Your task to perform on an android device: open app "NewsBreak: Local News & Alerts" (install if not already installed) and go to login screen Image 0: 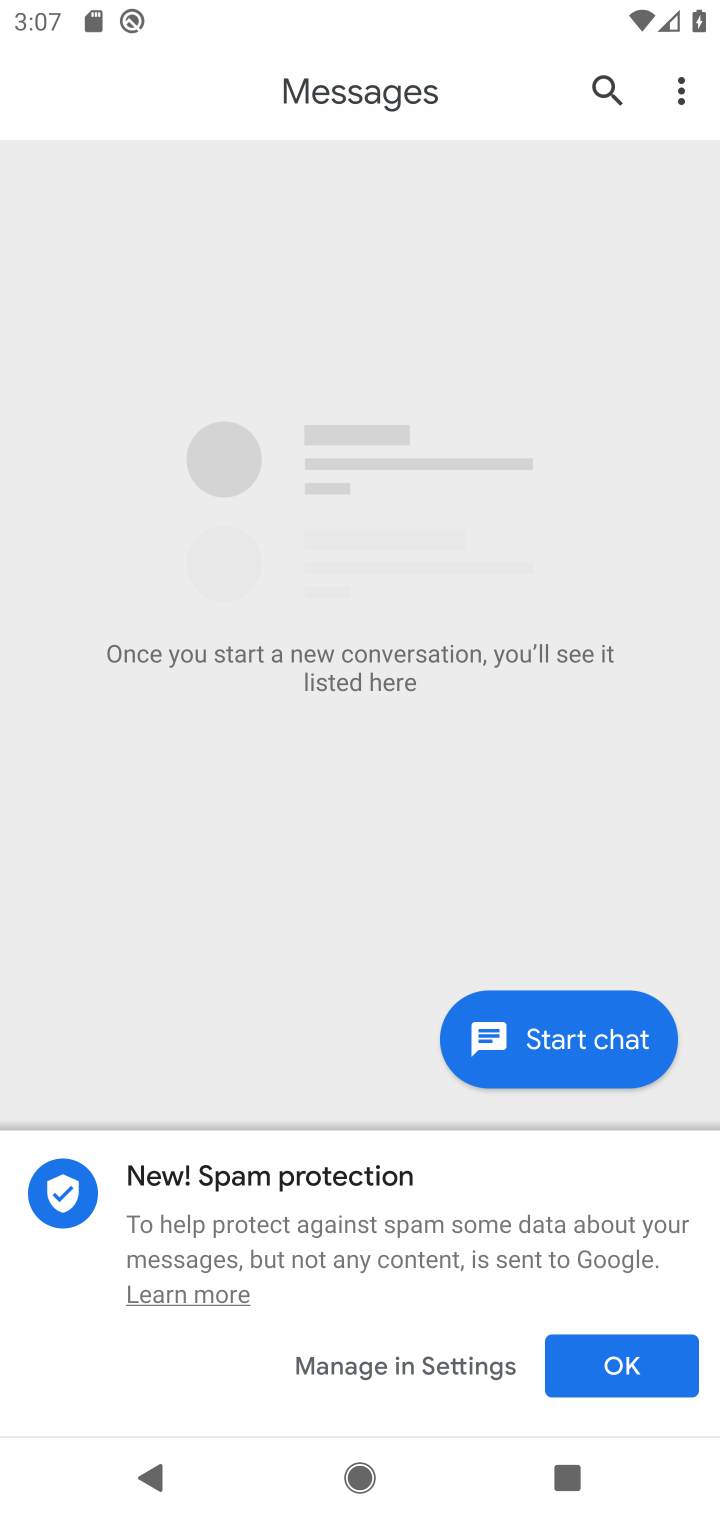
Step 0: press home button
Your task to perform on an android device: open app "NewsBreak: Local News & Alerts" (install if not already installed) and go to login screen Image 1: 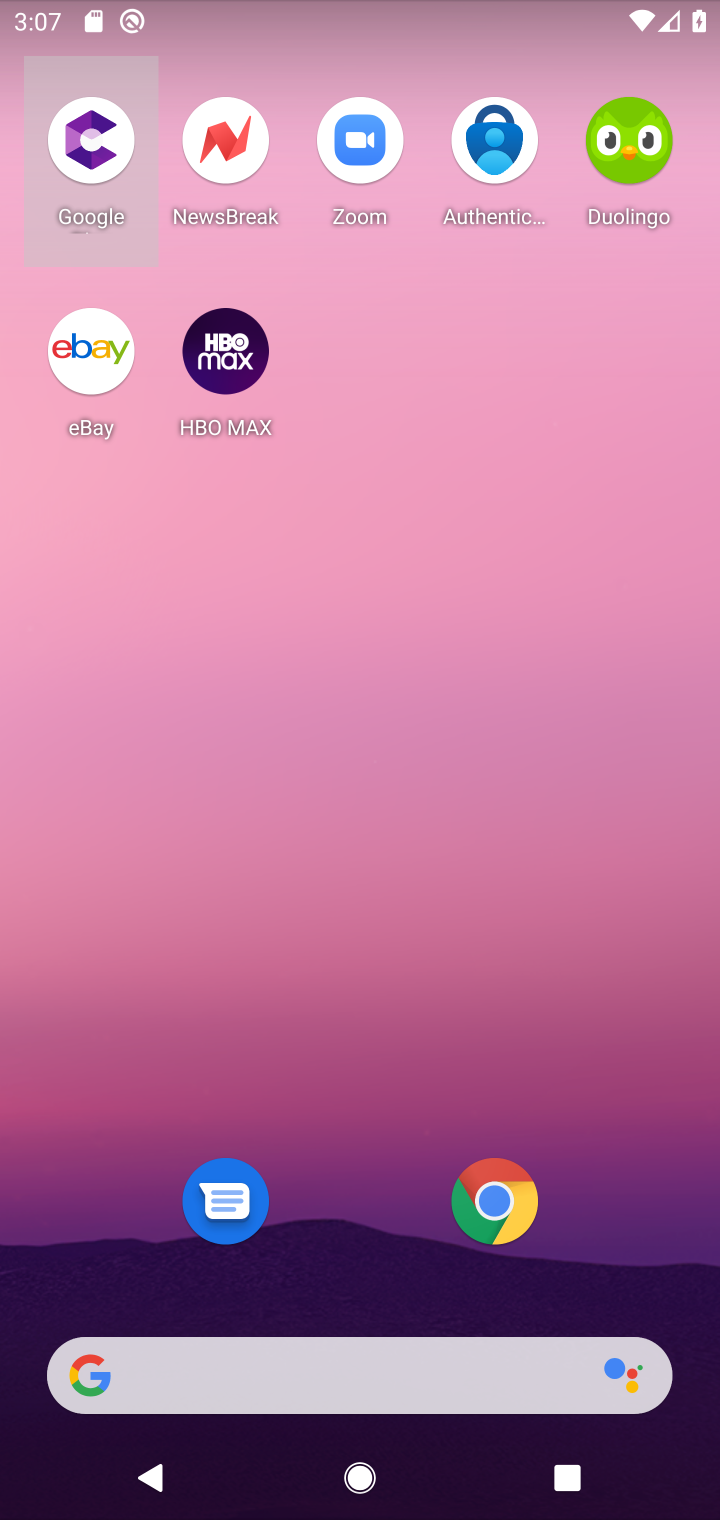
Step 1: drag from (684, 1296) to (573, 151)
Your task to perform on an android device: open app "NewsBreak: Local News & Alerts" (install if not already installed) and go to login screen Image 2: 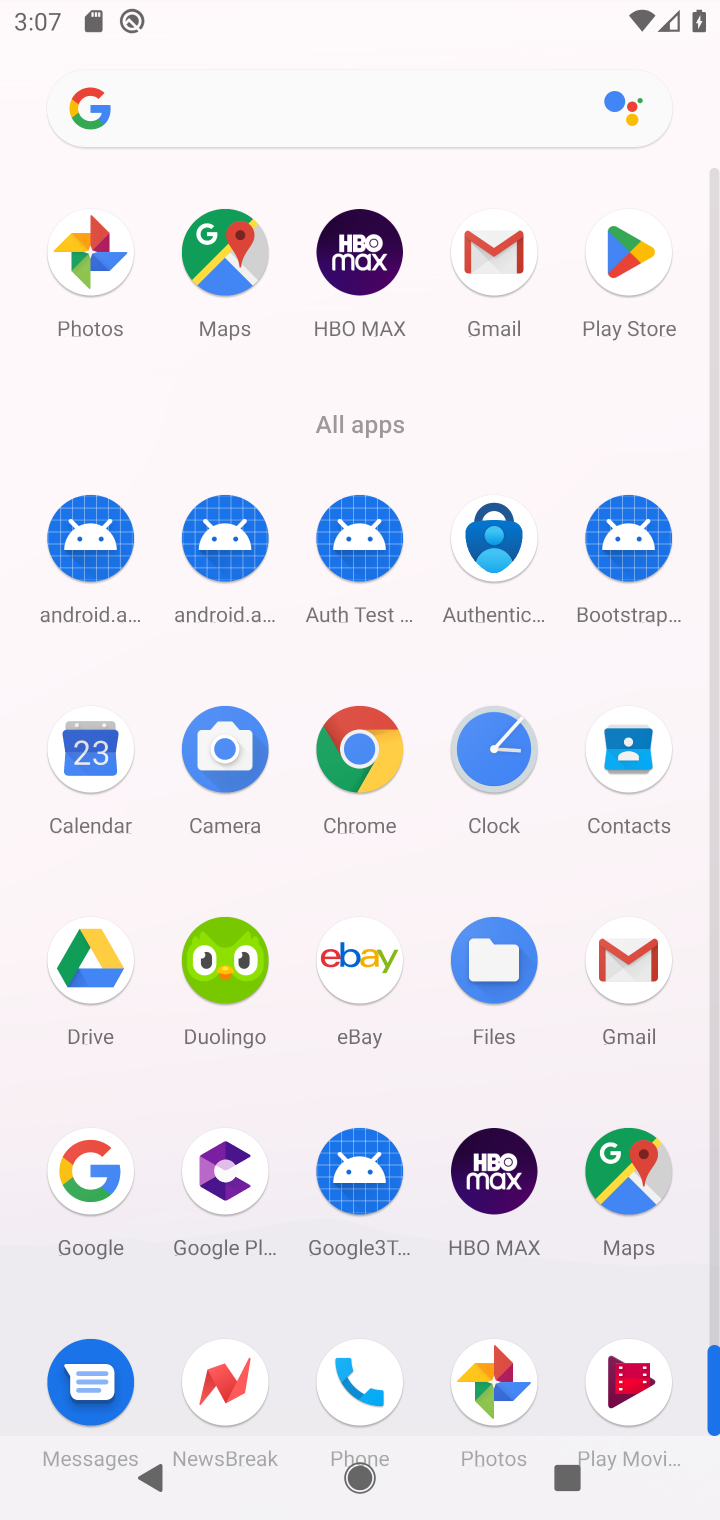
Step 2: click (718, 1307)
Your task to perform on an android device: open app "NewsBreak: Local News & Alerts" (install if not already installed) and go to login screen Image 3: 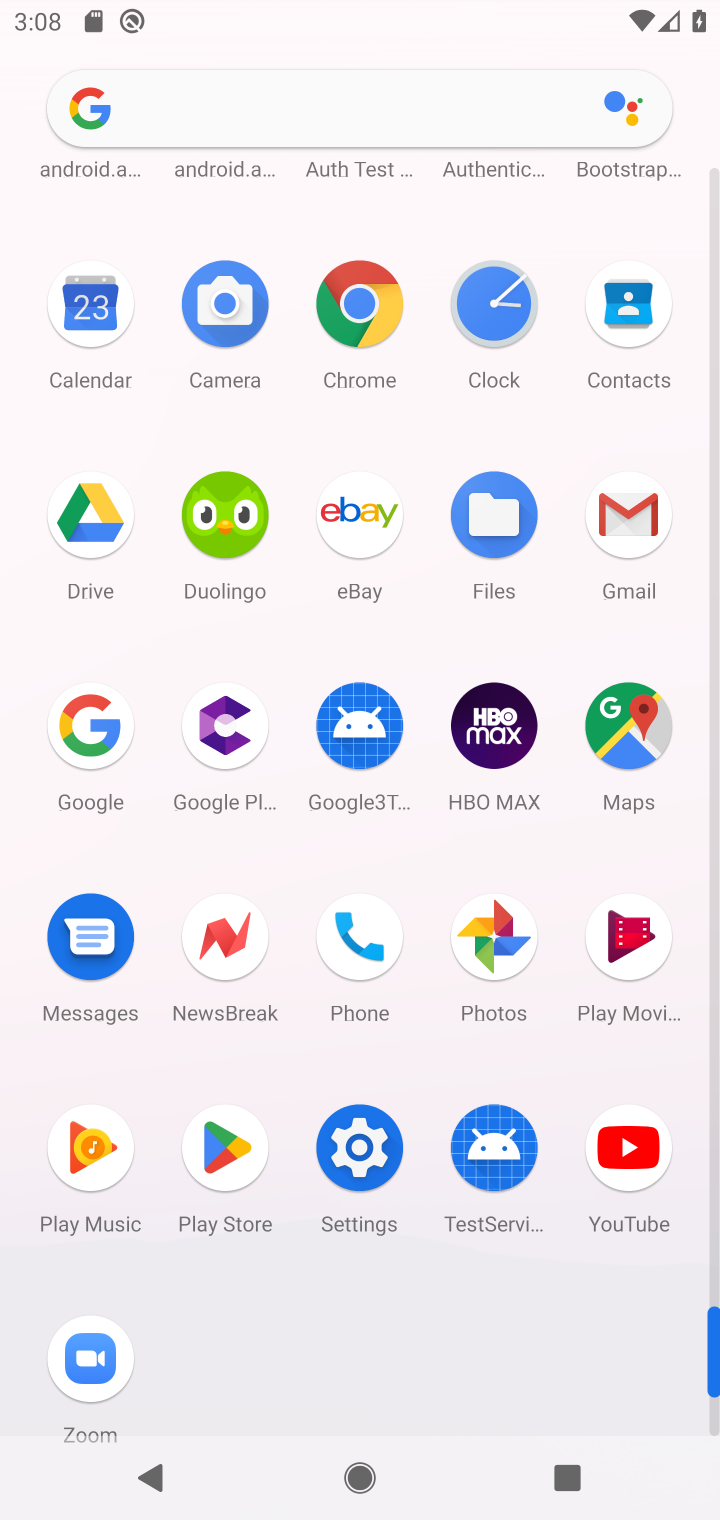
Step 3: click (225, 1153)
Your task to perform on an android device: open app "NewsBreak: Local News & Alerts" (install if not already installed) and go to login screen Image 4: 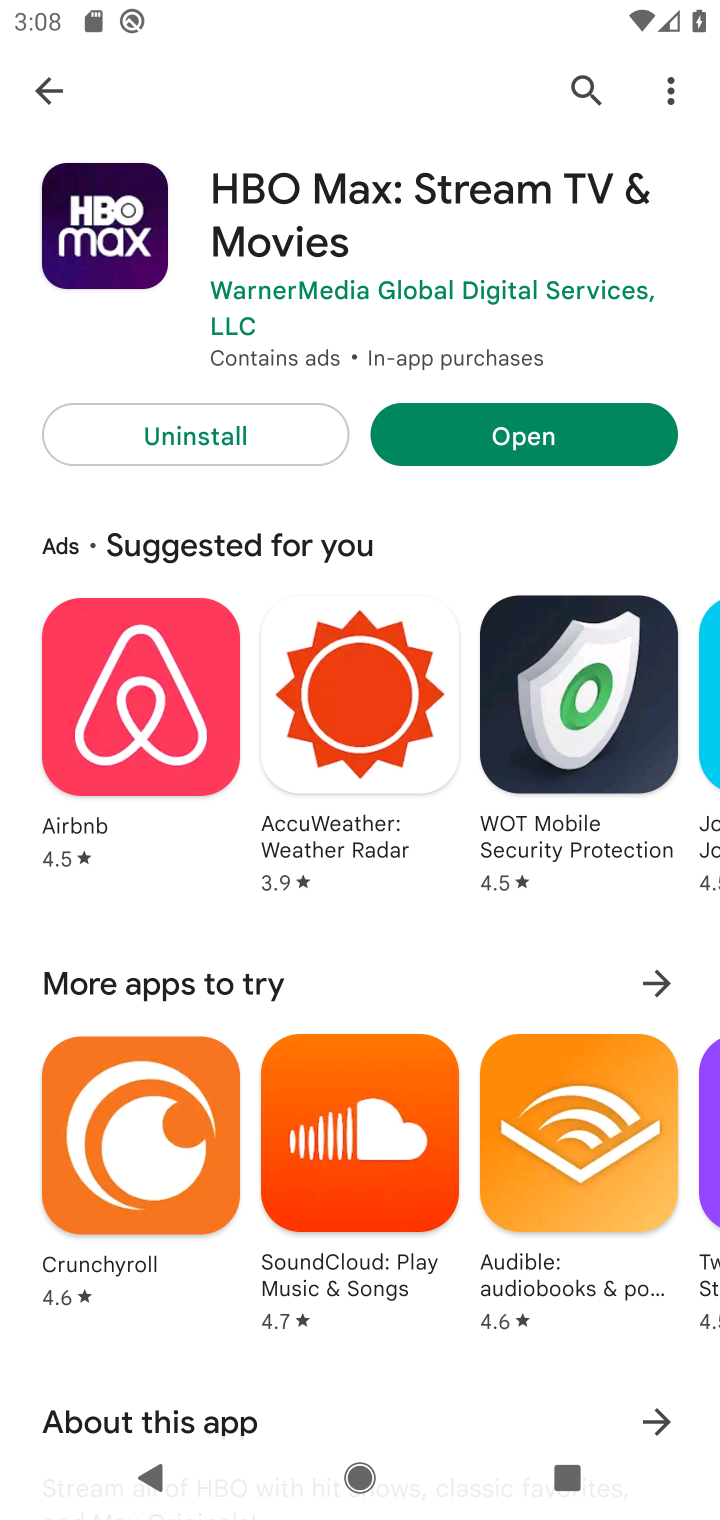
Step 4: click (586, 89)
Your task to perform on an android device: open app "NewsBreak: Local News & Alerts" (install if not already installed) and go to login screen Image 5: 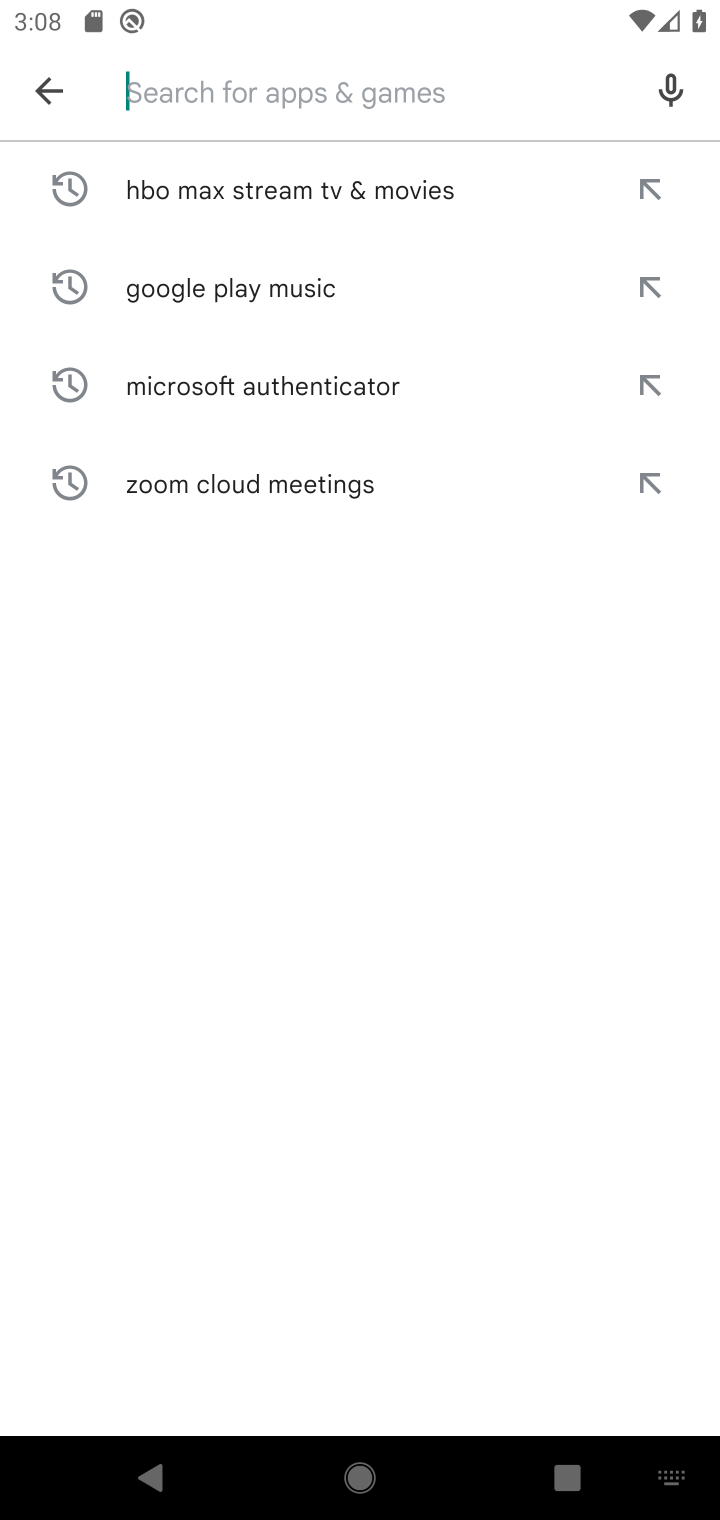
Step 5: type "NewsBreak: Local News & Alerts"
Your task to perform on an android device: open app "NewsBreak: Local News & Alerts" (install if not already installed) and go to login screen Image 6: 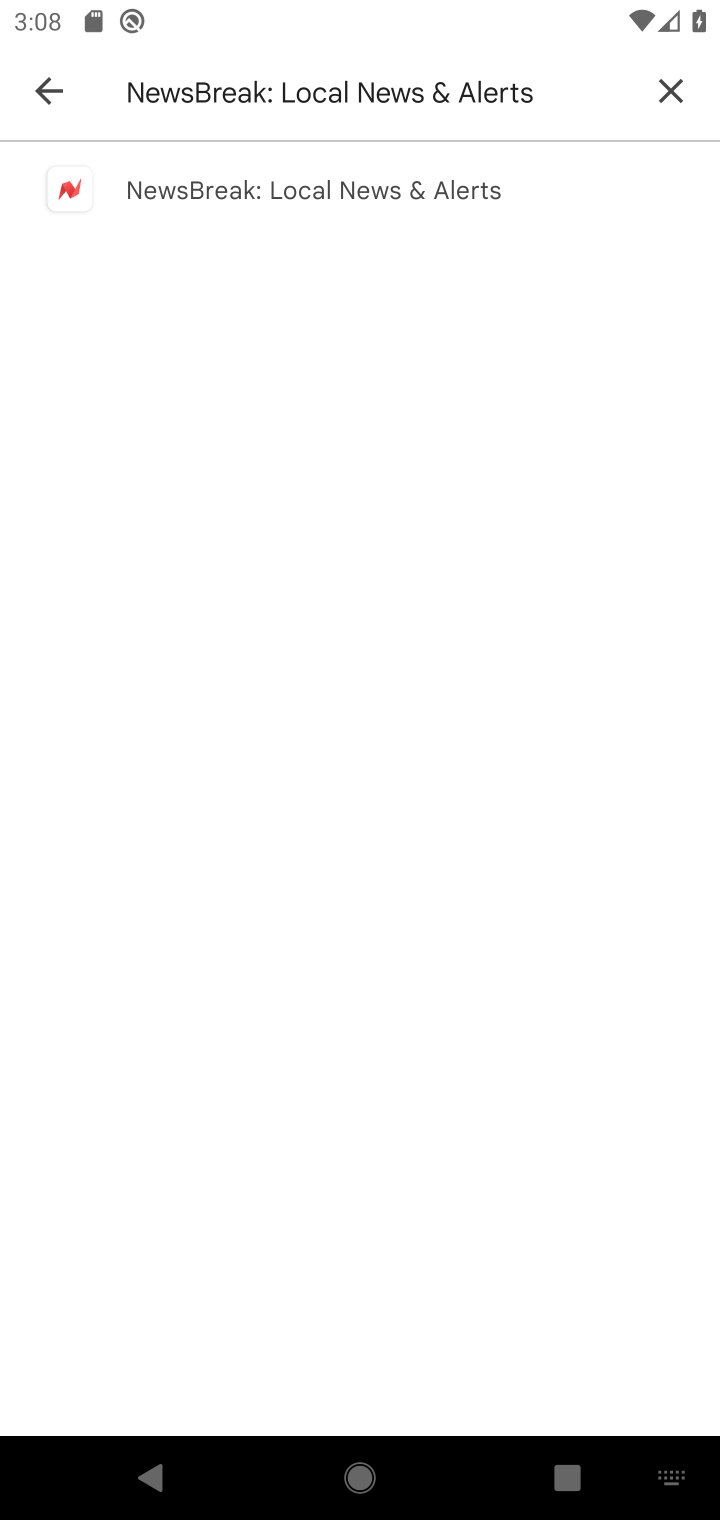
Step 6: click (282, 192)
Your task to perform on an android device: open app "NewsBreak: Local News & Alerts" (install if not already installed) and go to login screen Image 7: 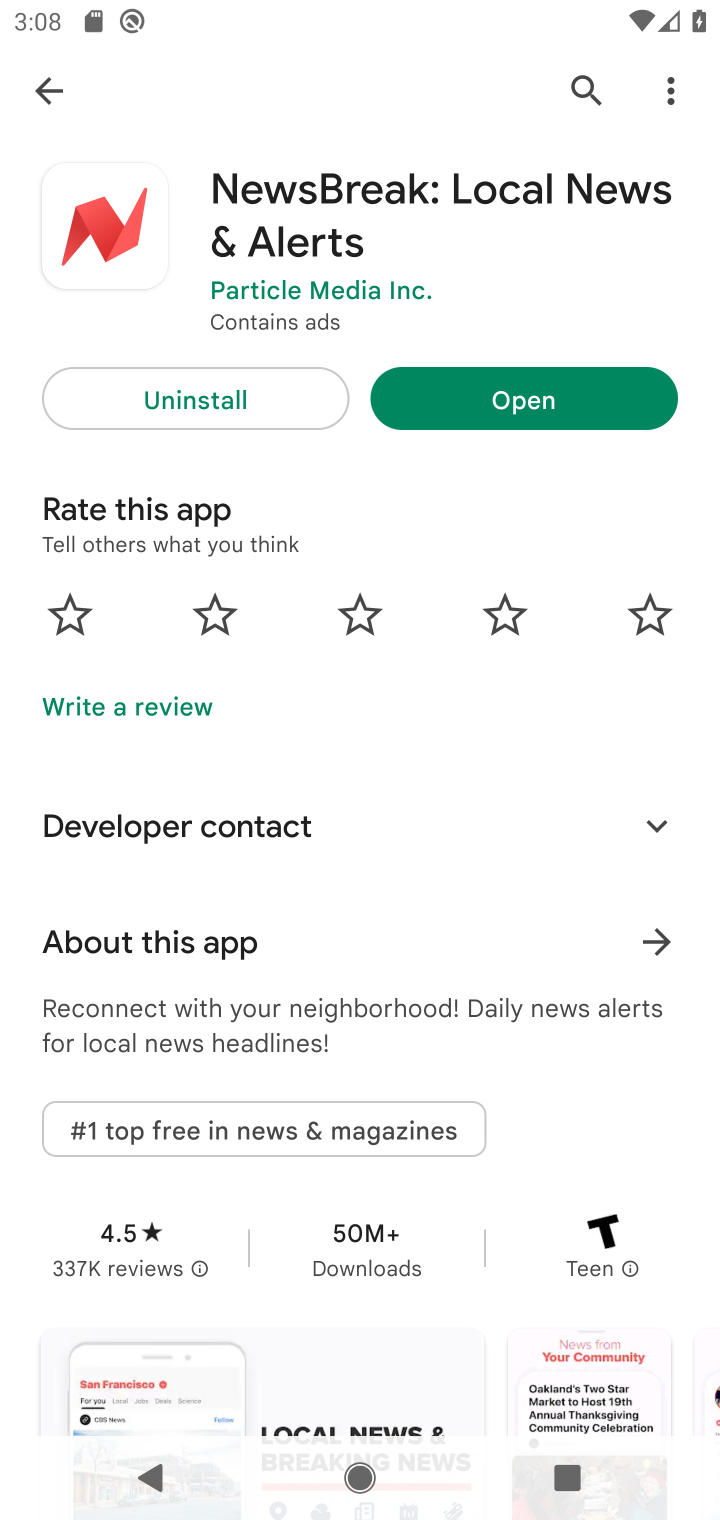
Step 7: click (511, 401)
Your task to perform on an android device: open app "NewsBreak: Local News & Alerts" (install if not already installed) and go to login screen Image 8: 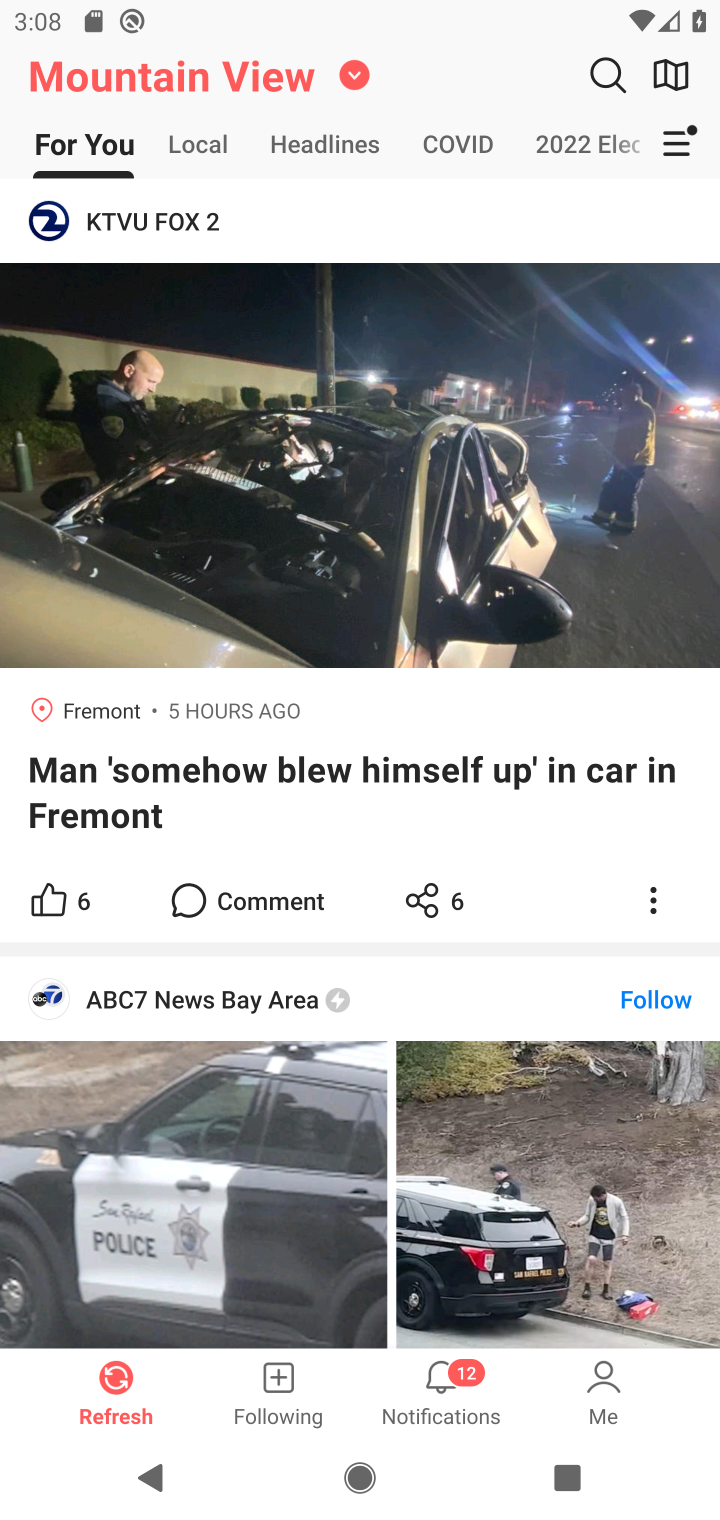
Step 8: click (599, 1380)
Your task to perform on an android device: open app "NewsBreak: Local News & Alerts" (install if not already installed) and go to login screen Image 9: 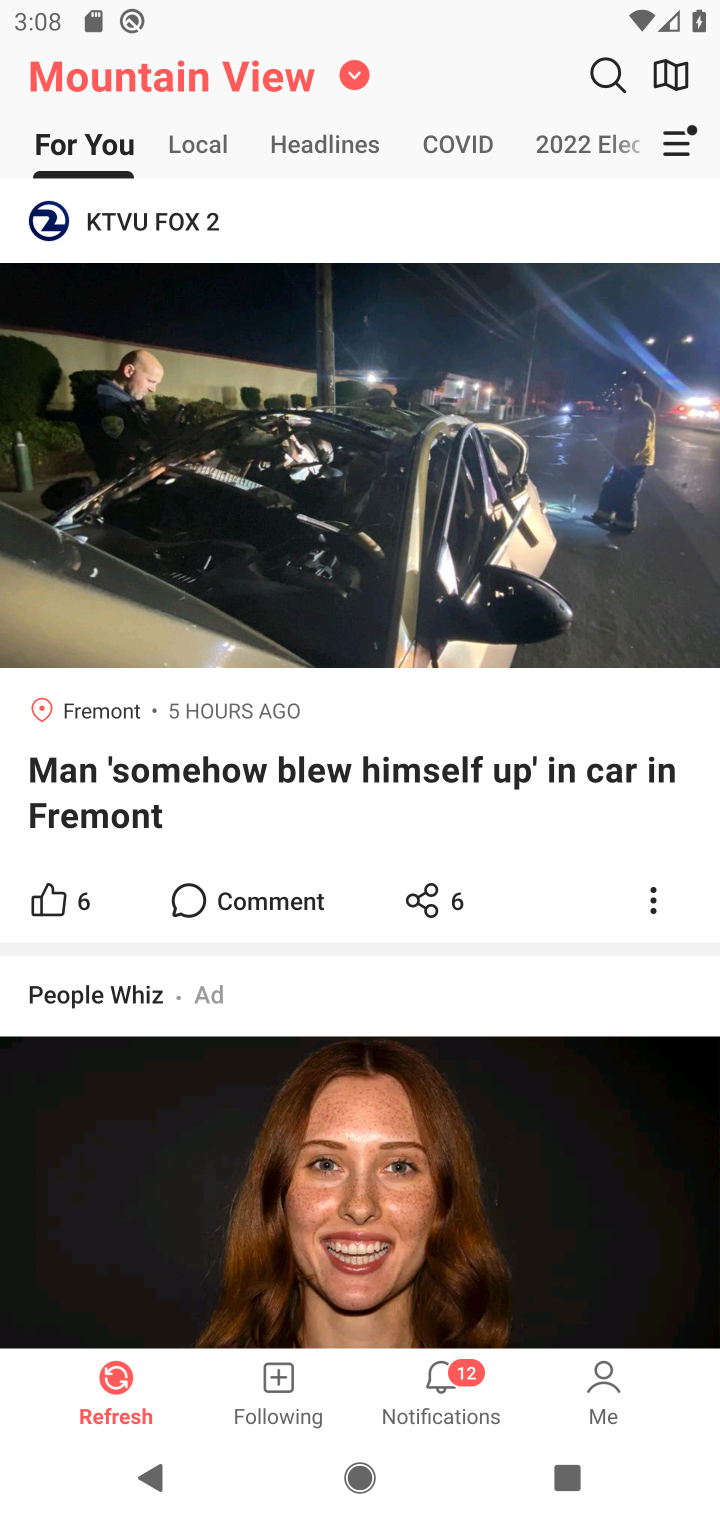
Step 9: click (599, 1377)
Your task to perform on an android device: open app "NewsBreak: Local News & Alerts" (install if not already installed) and go to login screen Image 10: 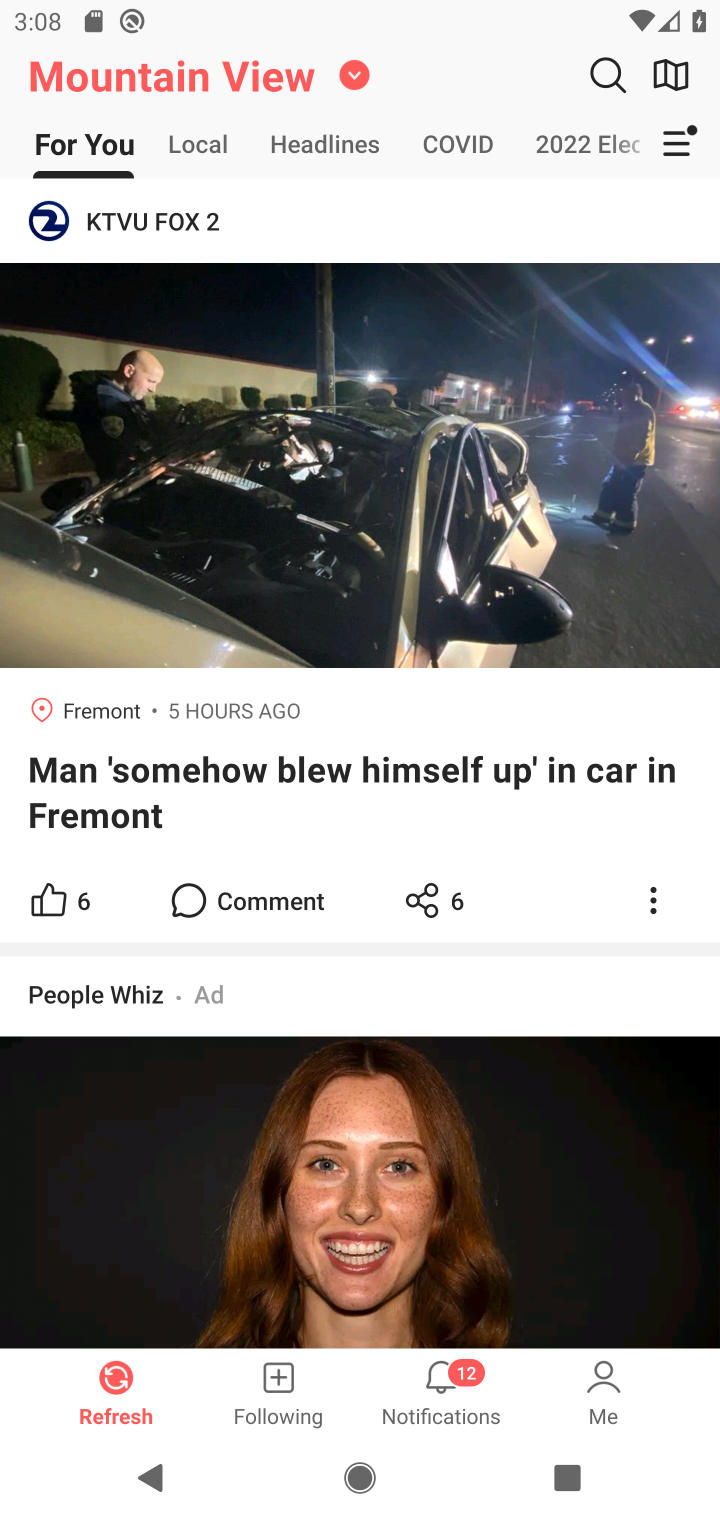
Step 10: click (596, 1389)
Your task to perform on an android device: open app "NewsBreak: Local News & Alerts" (install if not already installed) and go to login screen Image 11: 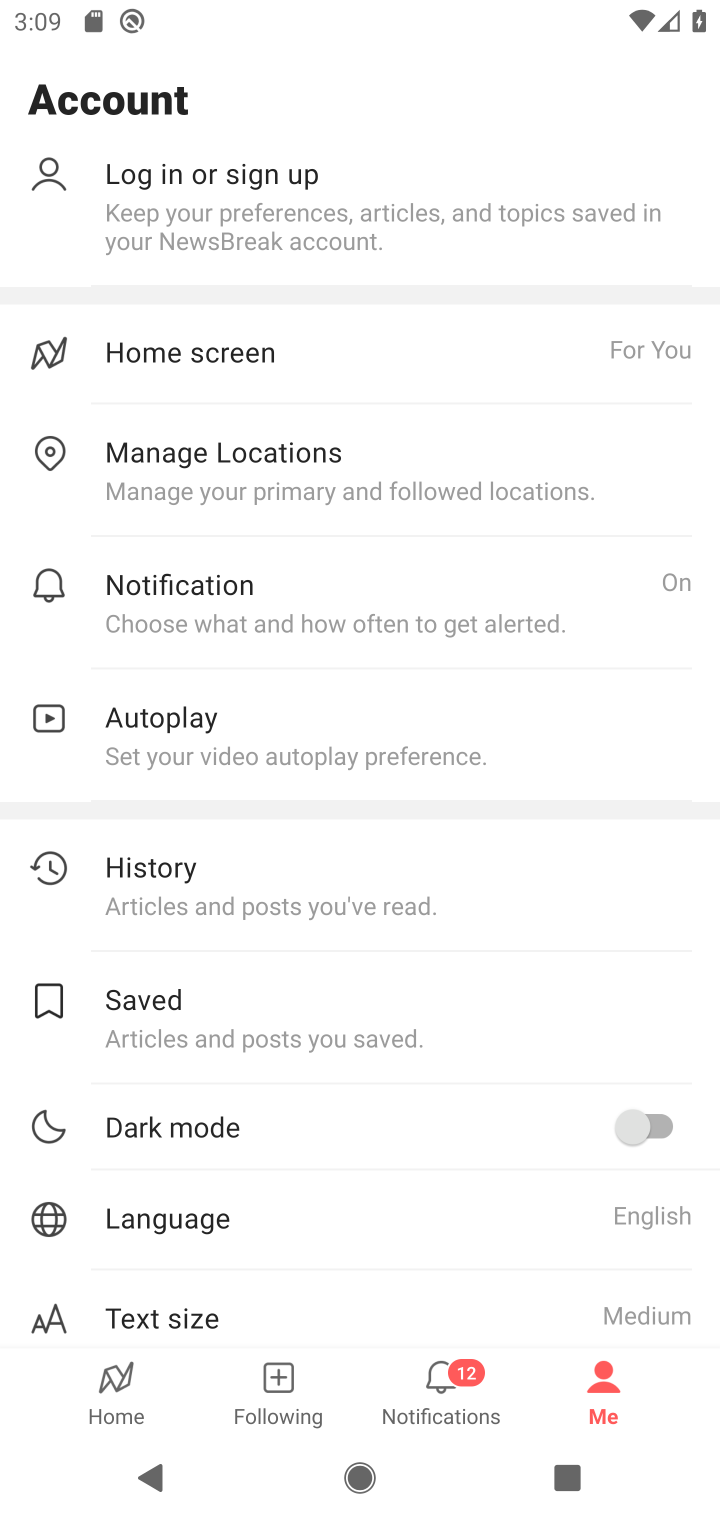
Step 11: click (163, 193)
Your task to perform on an android device: open app "NewsBreak: Local News & Alerts" (install if not already installed) and go to login screen Image 12: 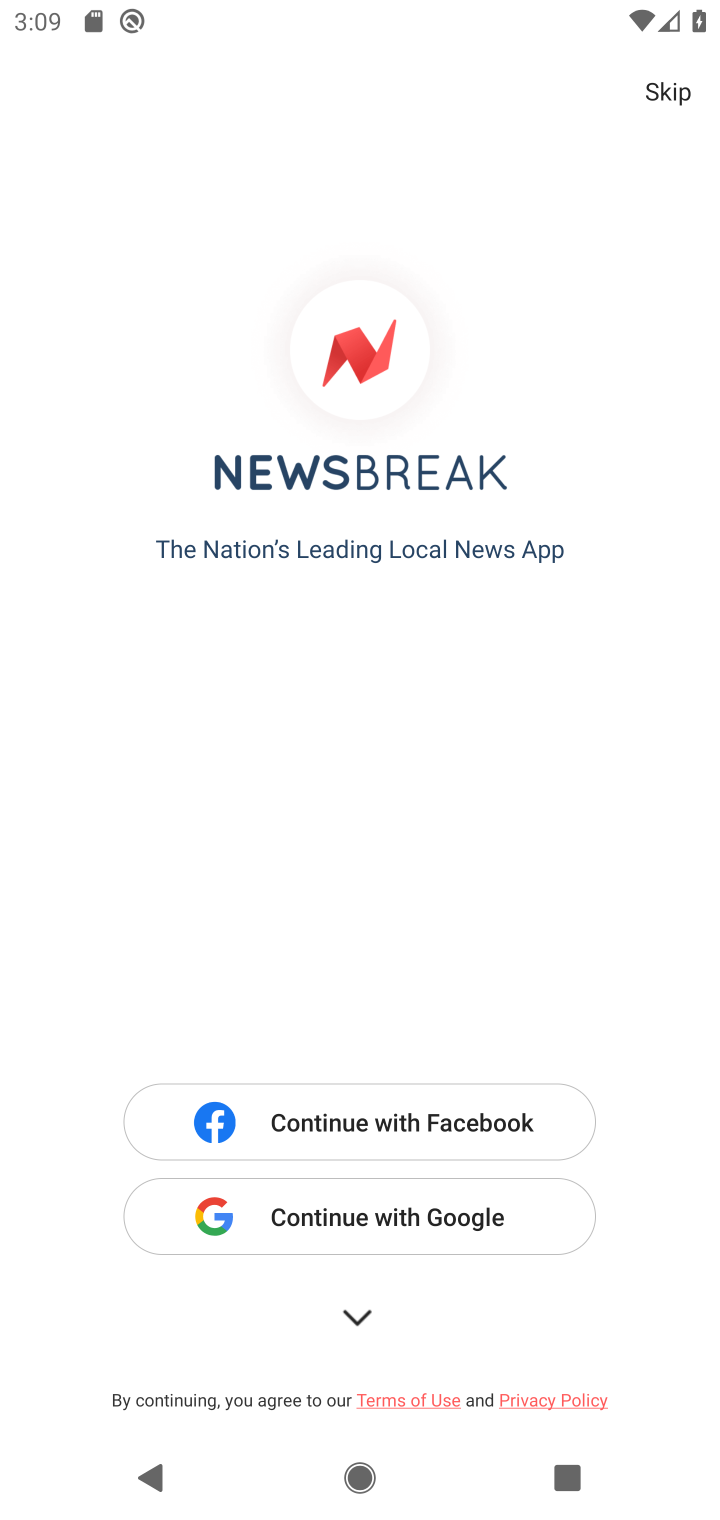
Step 12: click (352, 1315)
Your task to perform on an android device: open app "NewsBreak: Local News & Alerts" (install if not already installed) and go to login screen Image 13: 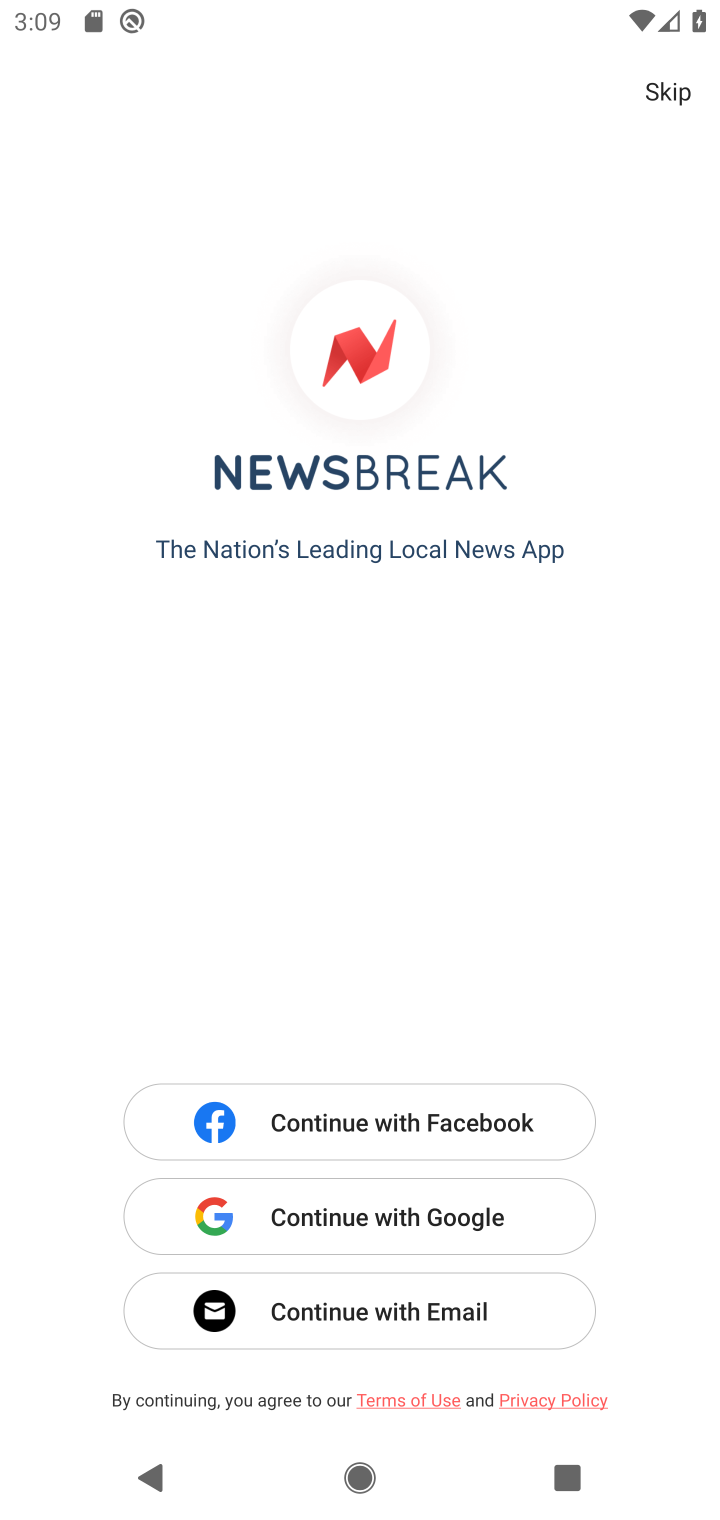
Step 13: click (358, 1315)
Your task to perform on an android device: open app "NewsBreak: Local News & Alerts" (install if not already installed) and go to login screen Image 14: 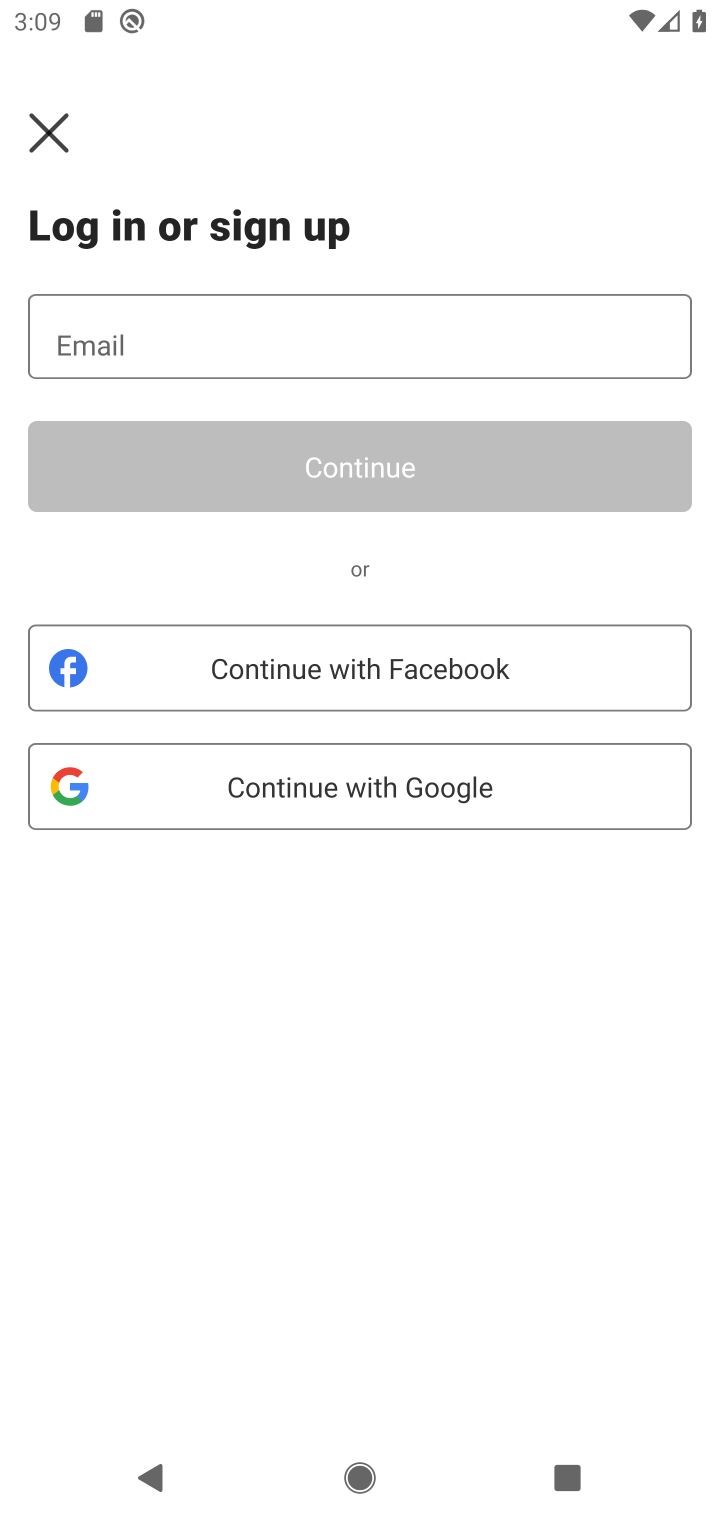
Step 14: click (206, 369)
Your task to perform on an android device: open app "NewsBreak: Local News & Alerts" (install if not already installed) and go to login screen Image 15: 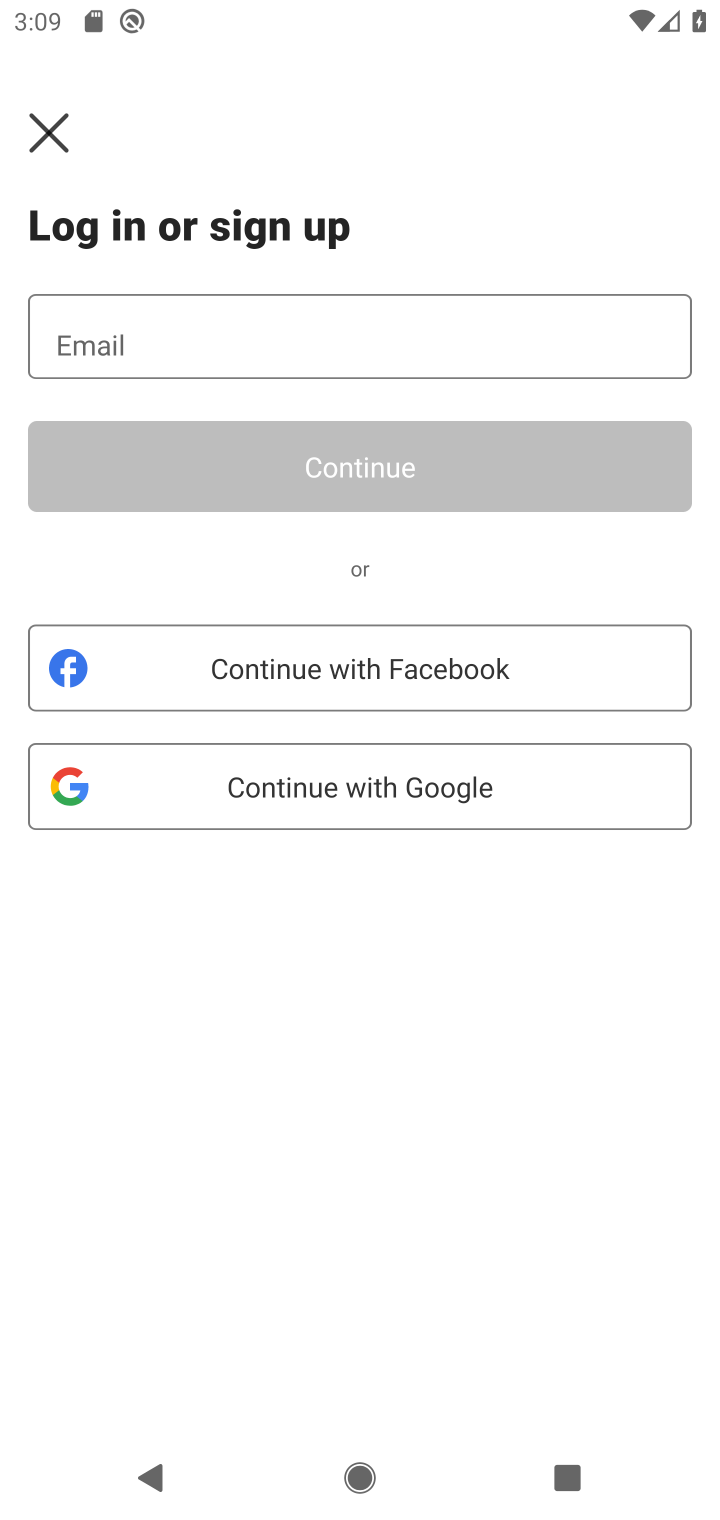
Step 15: task complete